Your task to perform on an android device: check google app version Image 0: 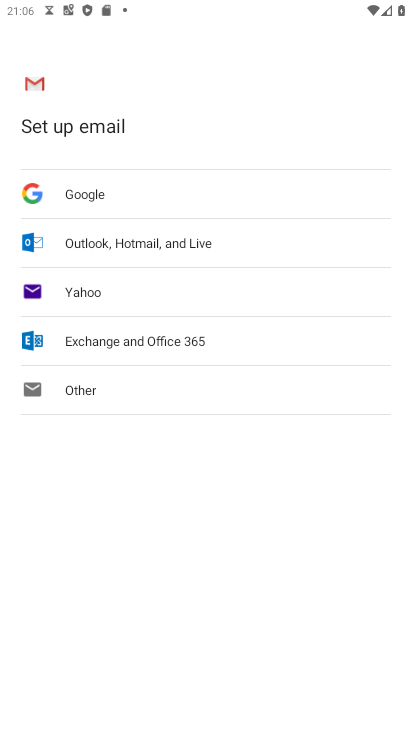
Step 0: press home button
Your task to perform on an android device: check google app version Image 1: 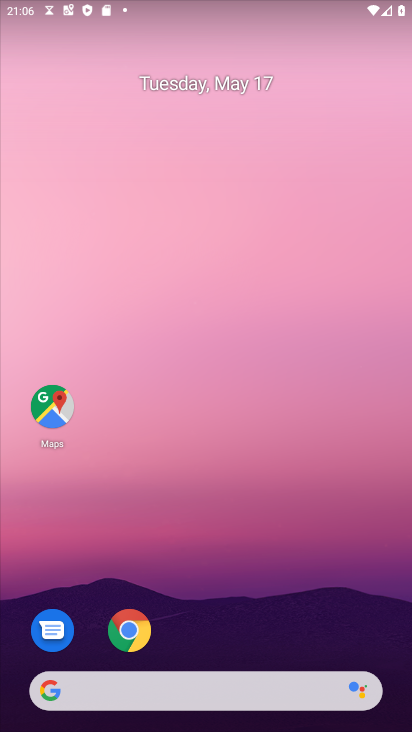
Step 1: drag from (197, 624) to (125, 176)
Your task to perform on an android device: check google app version Image 2: 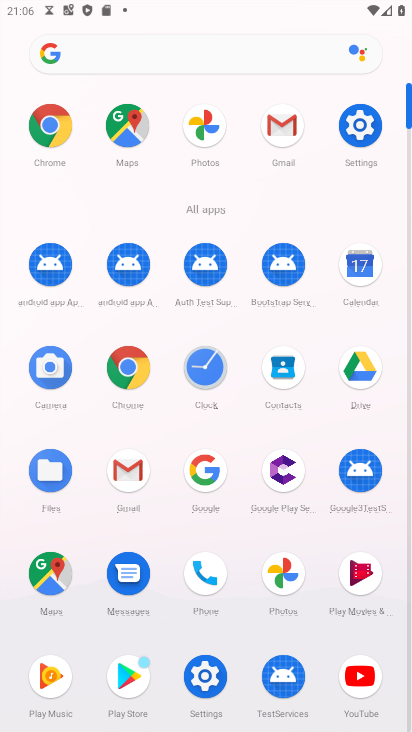
Step 2: click (210, 480)
Your task to perform on an android device: check google app version Image 3: 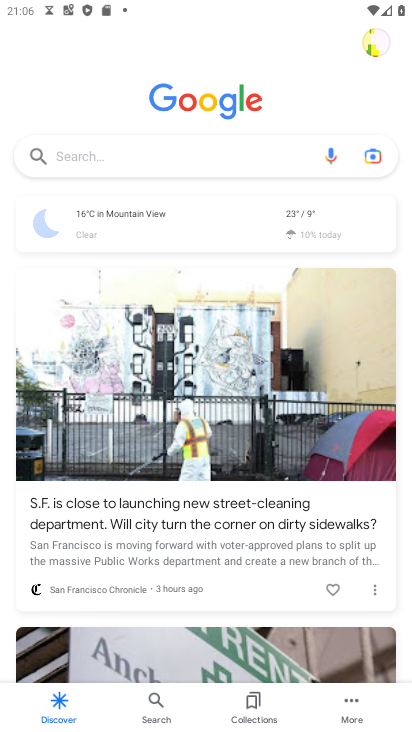
Step 3: click (355, 708)
Your task to perform on an android device: check google app version Image 4: 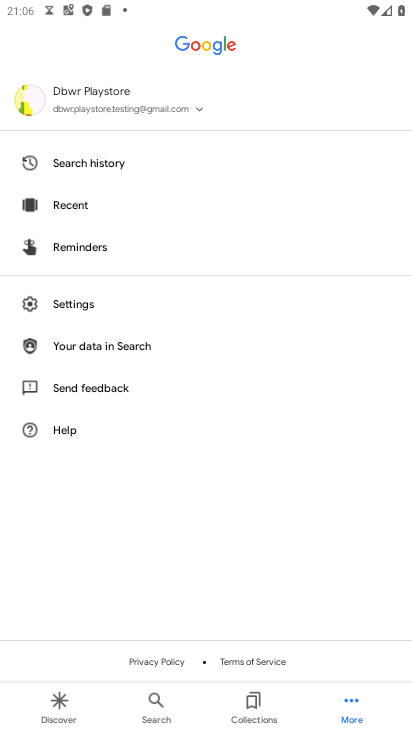
Step 4: click (78, 310)
Your task to perform on an android device: check google app version Image 5: 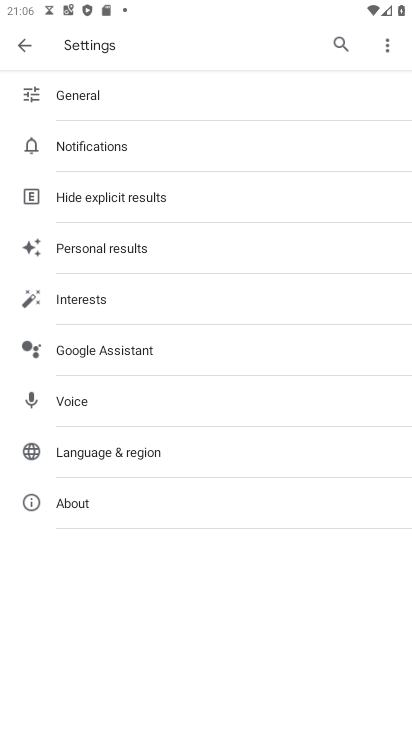
Step 5: click (74, 509)
Your task to perform on an android device: check google app version Image 6: 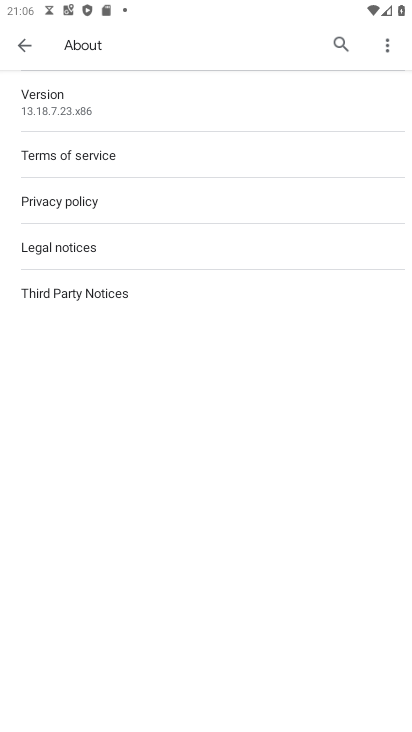
Step 6: task complete